Your task to perform on an android device: change keyboard looks Image 0: 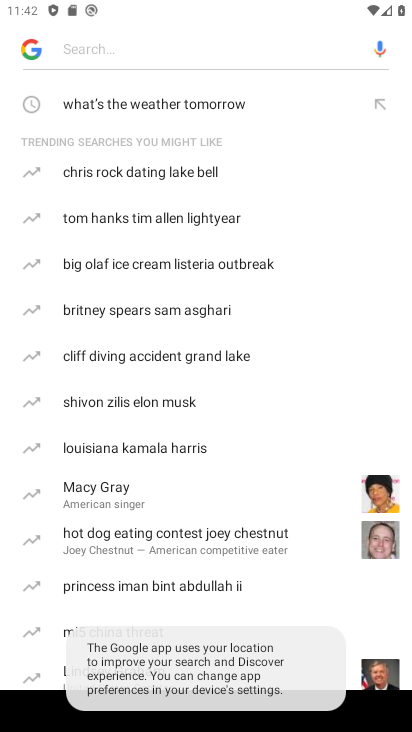
Step 0: press home button
Your task to perform on an android device: change keyboard looks Image 1: 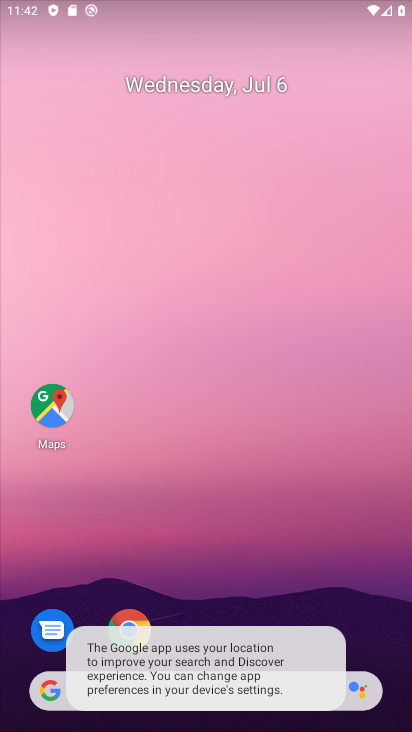
Step 1: drag from (232, 566) to (231, 30)
Your task to perform on an android device: change keyboard looks Image 2: 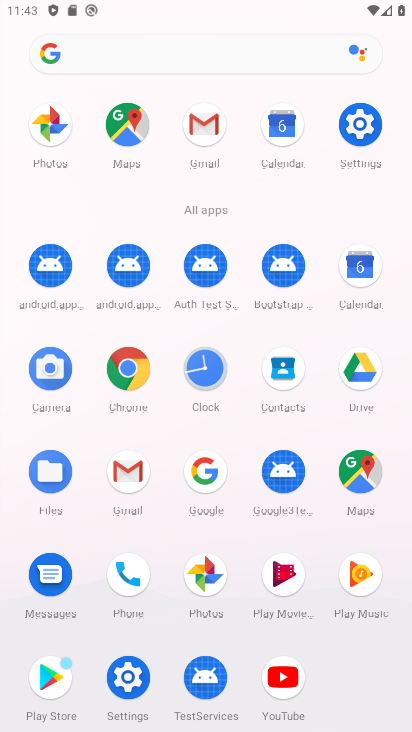
Step 2: click (132, 684)
Your task to perform on an android device: change keyboard looks Image 3: 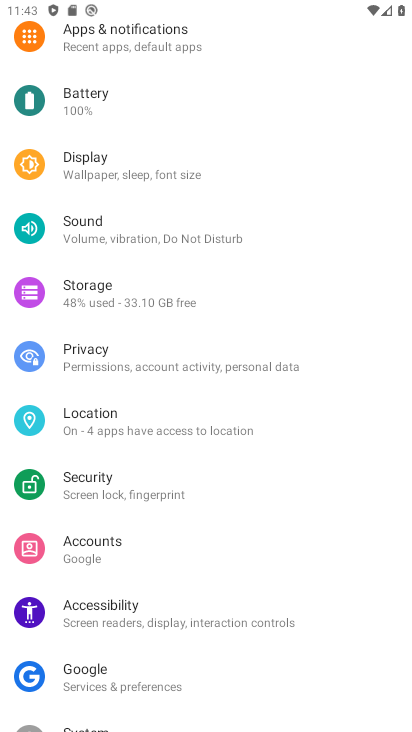
Step 3: drag from (124, 662) to (126, 600)
Your task to perform on an android device: change keyboard looks Image 4: 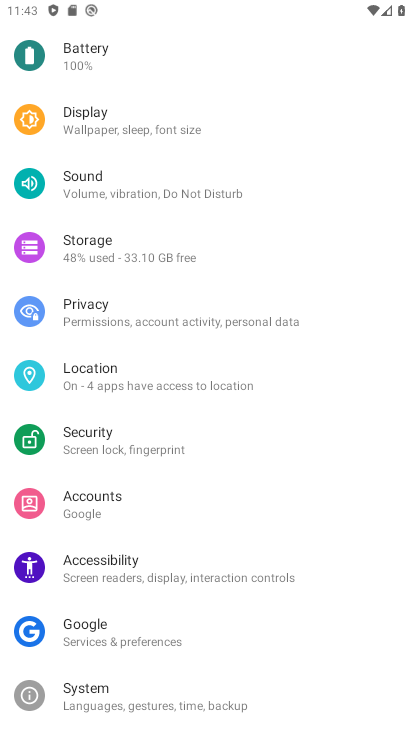
Step 4: drag from (135, 600) to (135, 498)
Your task to perform on an android device: change keyboard looks Image 5: 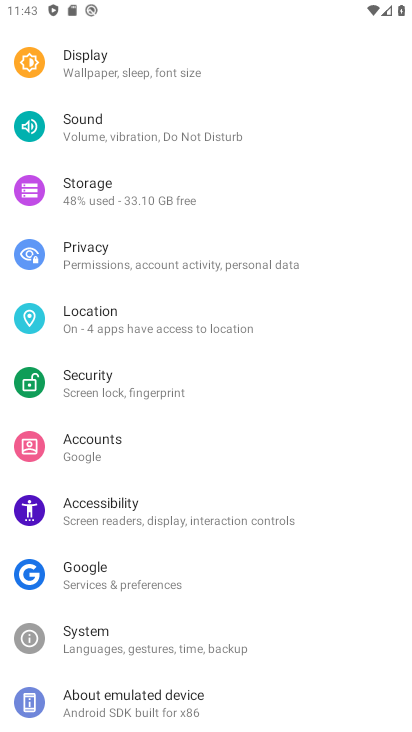
Step 5: click (95, 643)
Your task to perform on an android device: change keyboard looks Image 6: 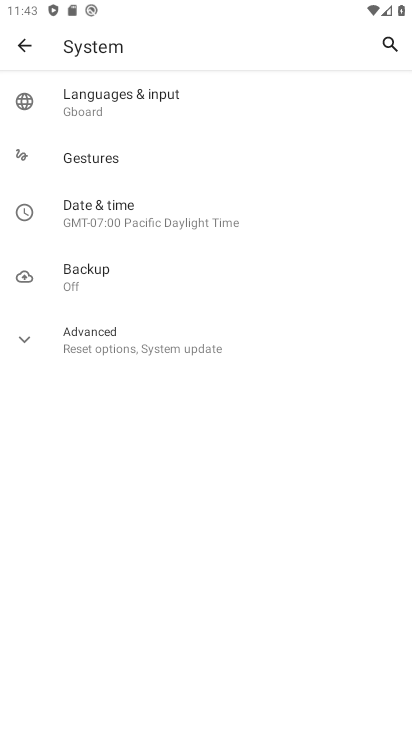
Step 6: click (93, 107)
Your task to perform on an android device: change keyboard looks Image 7: 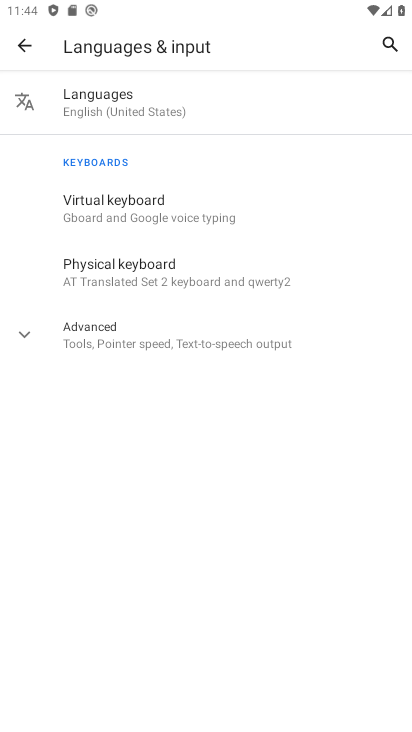
Step 7: click (118, 225)
Your task to perform on an android device: change keyboard looks Image 8: 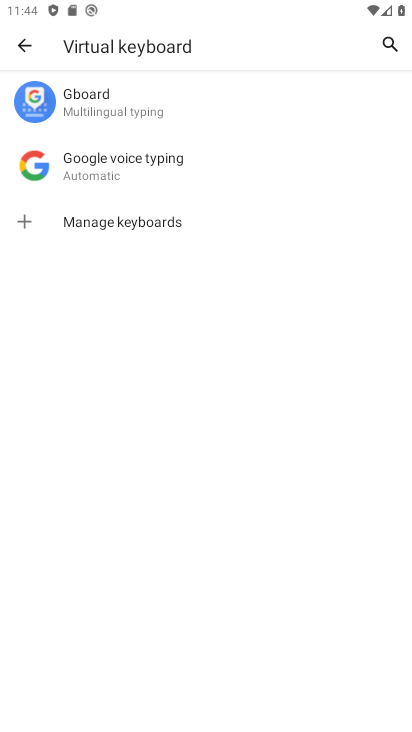
Step 8: click (138, 106)
Your task to perform on an android device: change keyboard looks Image 9: 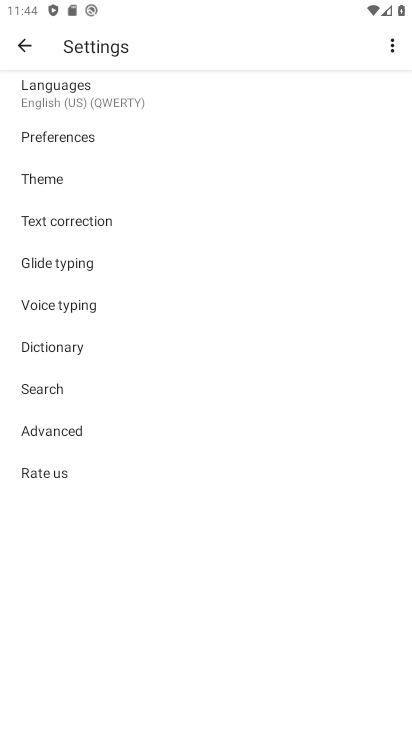
Step 9: click (53, 182)
Your task to perform on an android device: change keyboard looks Image 10: 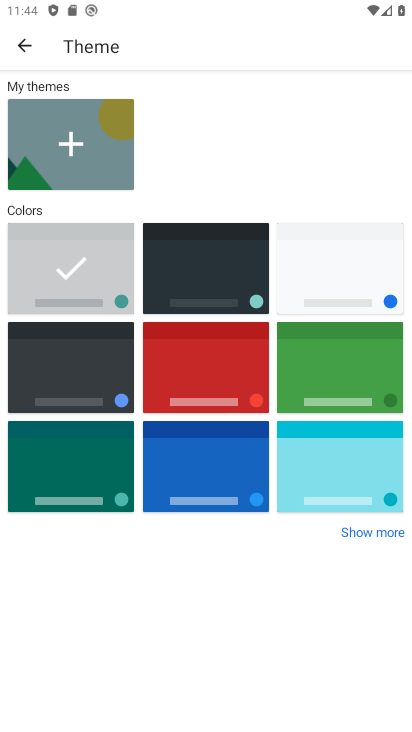
Step 10: click (190, 286)
Your task to perform on an android device: change keyboard looks Image 11: 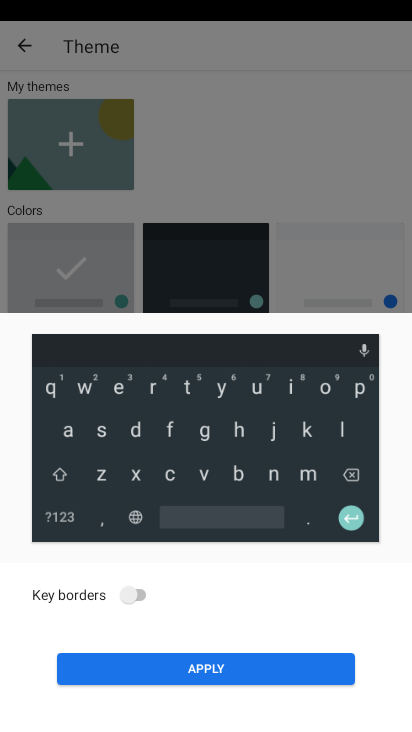
Step 11: click (211, 672)
Your task to perform on an android device: change keyboard looks Image 12: 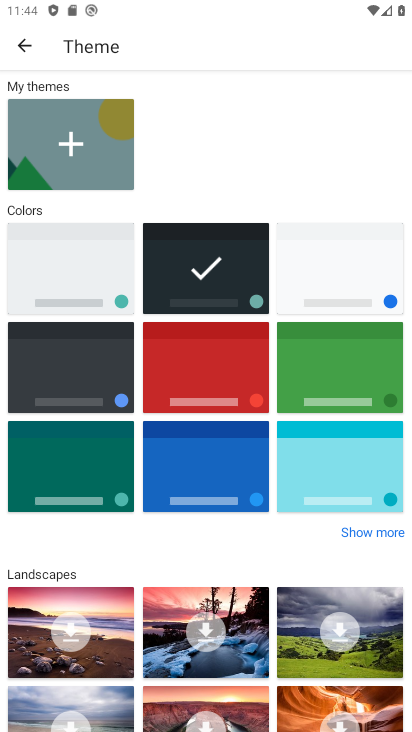
Step 12: task complete